Your task to perform on an android device: Open internet settings Image 0: 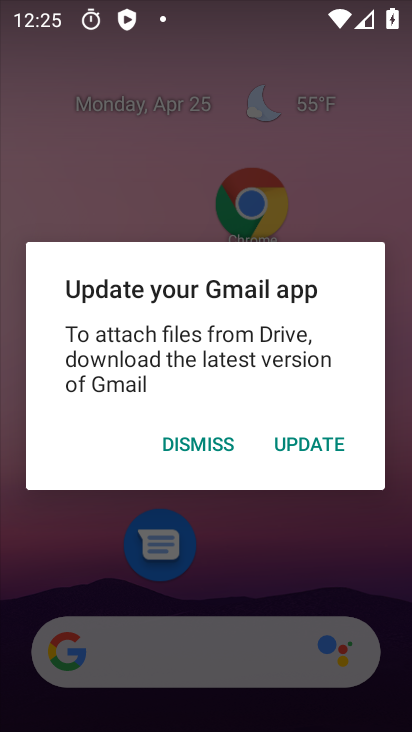
Step 0: press home button
Your task to perform on an android device: Open internet settings Image 1: 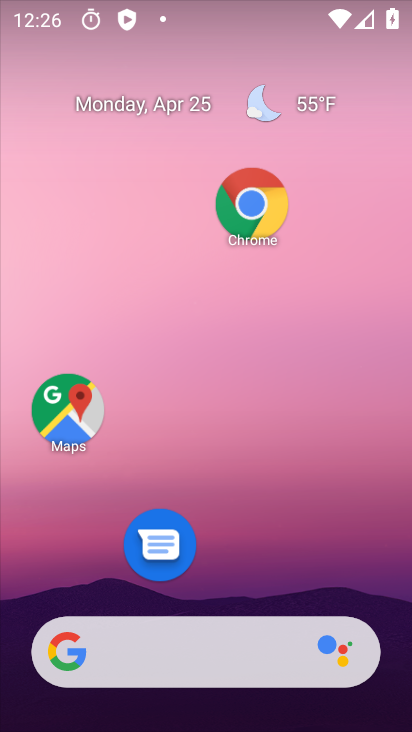
Step 1: drag from (271, 678) to (301, 226)
Your task to perform on an android device: Open internet settings Image 2: 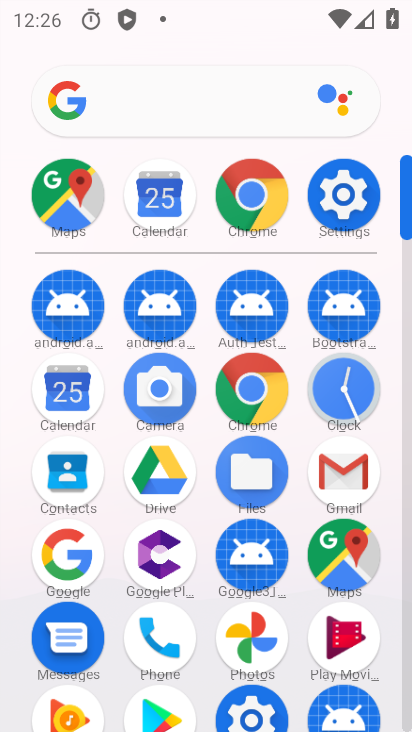
Step 2: drag from (365, 167) to (335, 190)
Your task to perform on an android device: Open internet settings Image 3: 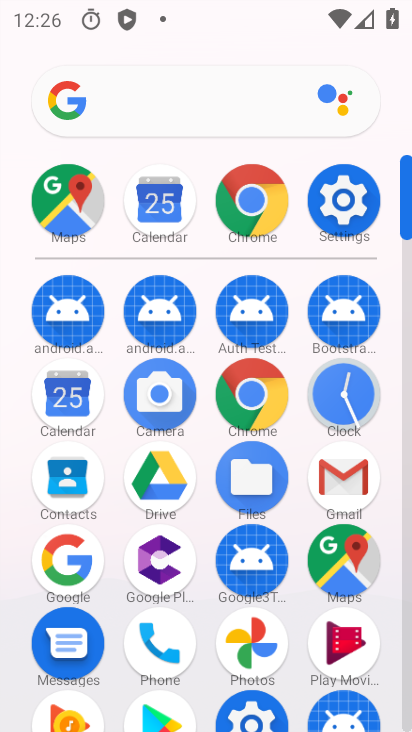
Step 3: click (335, 190)
Your task to perform on an android device: Open internet settings Image 4: 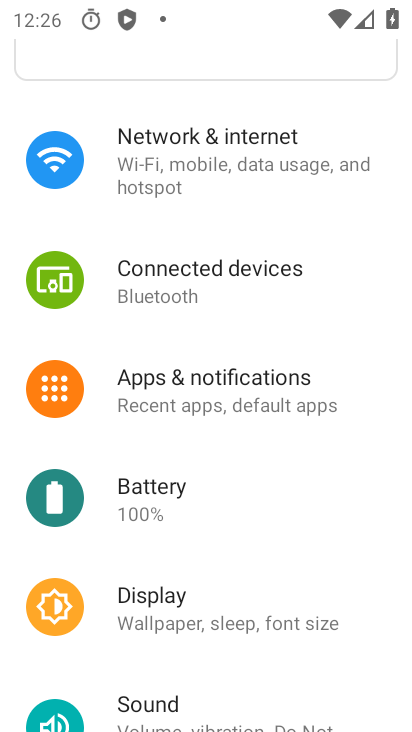
Step 4: click (215, 169)
Your task to perform on an android device: Open internet settings Image 5: 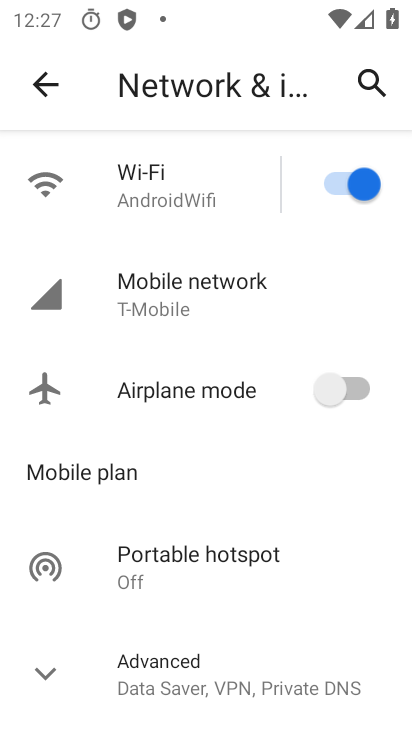
Step 5: task complete